Your task to perform on an android device: change notifications settings Image 0: 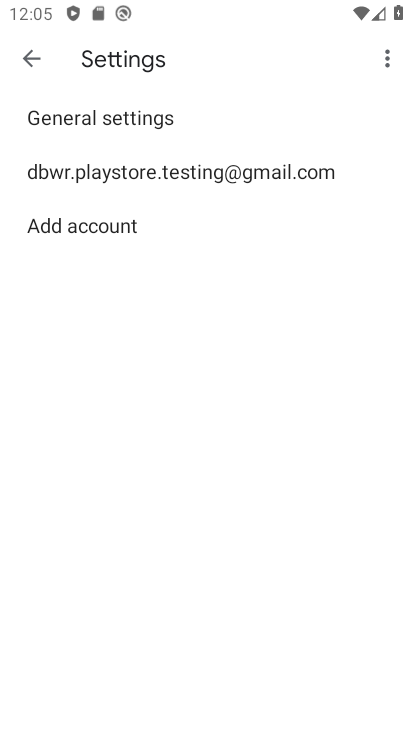
Step 0: press home button
Your task to perform on an android device: change notifications settings Image 1: 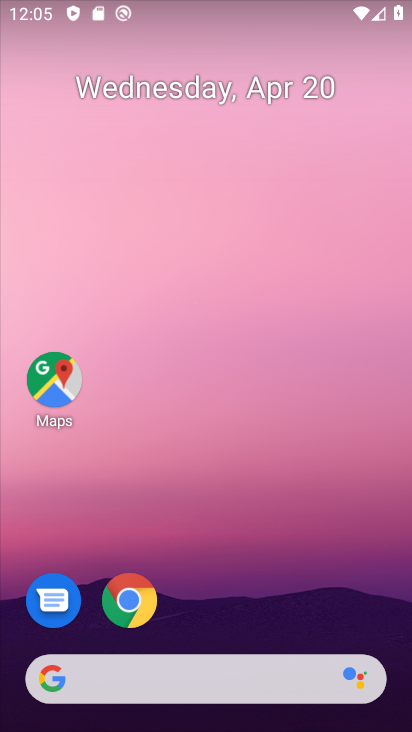
Step 1: drag from (363, 565) to (355, 188)
Your task to perform on an android device: change notifications settings Image 2: 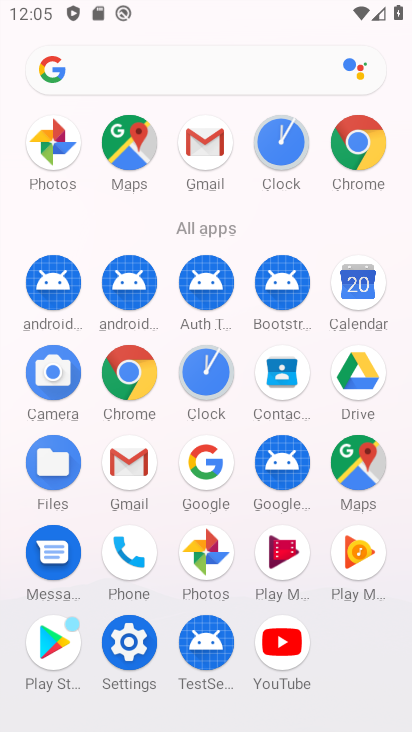
Step 2: click (129, 649)
Your task to perform on an android device: change notifications settings Image 3: 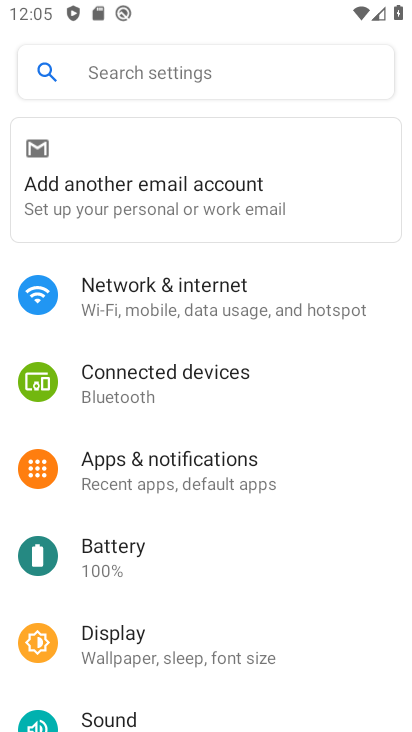
Step 3: click (194, 461)
Your task to perform on an android device: change notifications settings Image 4: 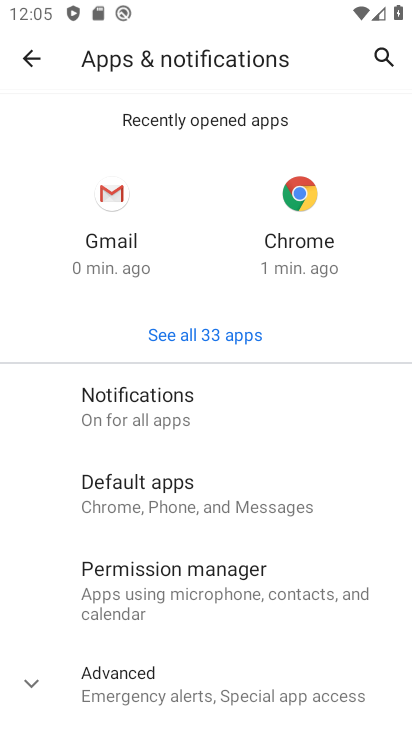
Step 4: click (167, 411)
Your task to perform on an android device: change notifications settings Image 5: 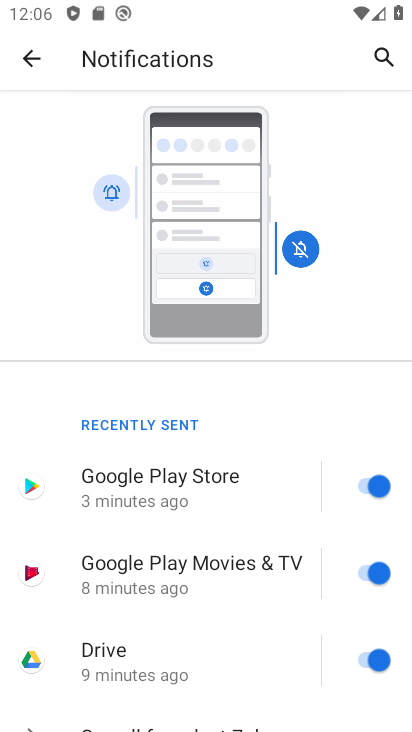
Step 5: click (376, 497)
Your task to perform on an android device: change notifications settings Image 6: 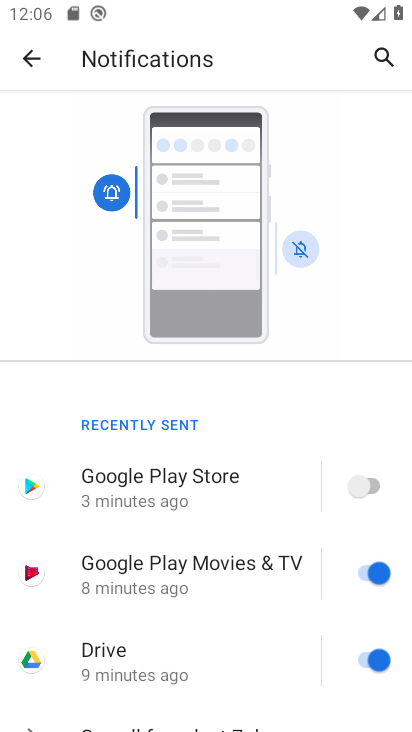
Step 6: click (370, 573)
Your task to perform on an android device: change notifications settings Image 7: 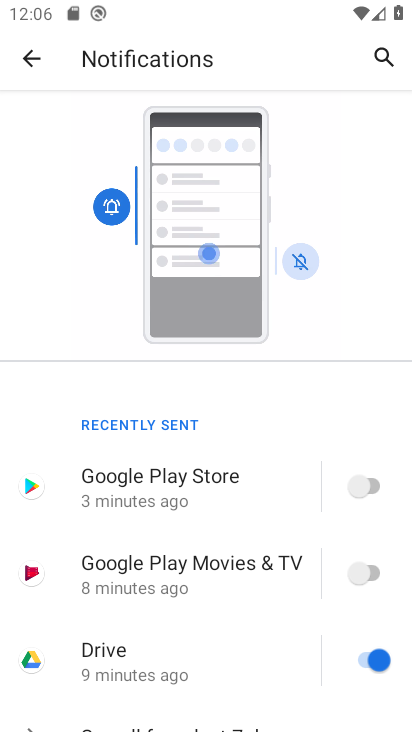
Step 7: task complete